Your task to perform on an android device: Open Youtube and go to the subscriptions tab Image 0: 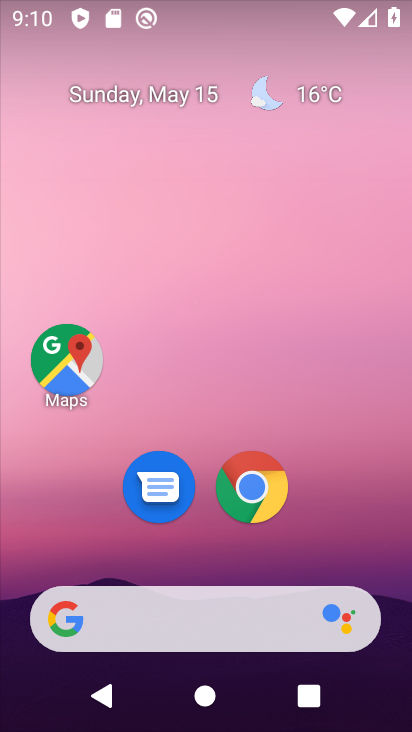
Step 0: drag from (328, 549) to (323, 171)
Your task to perform on an android device: Open Youtube and go to the subscriptions tab Image 1: 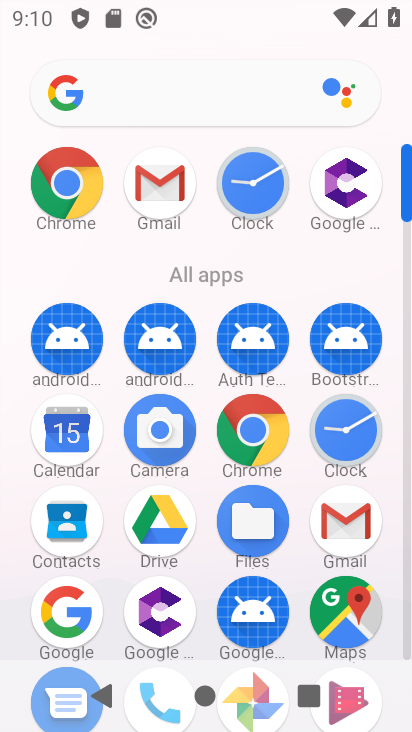
Step 1: drag from (306, 520) to (303, 272)
Your task to perform on an android device: Open Youtube and go to the subscriptions tab Image 2: 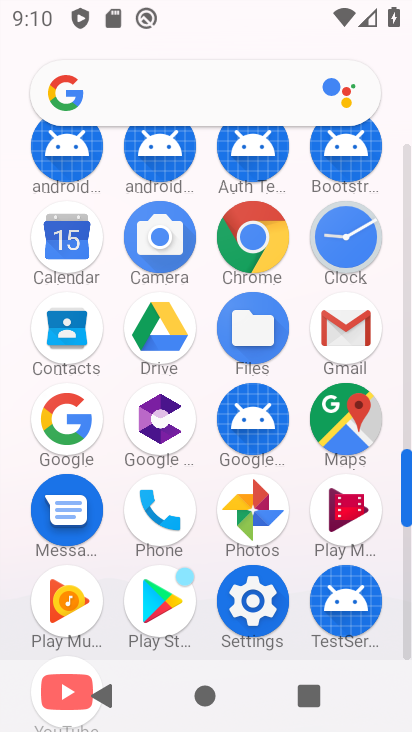
Step 2: drag from (213, 631) to (205, 373)
Your task to perform on an android device: Open Youtube and go to the subscriptions tab Image 3: 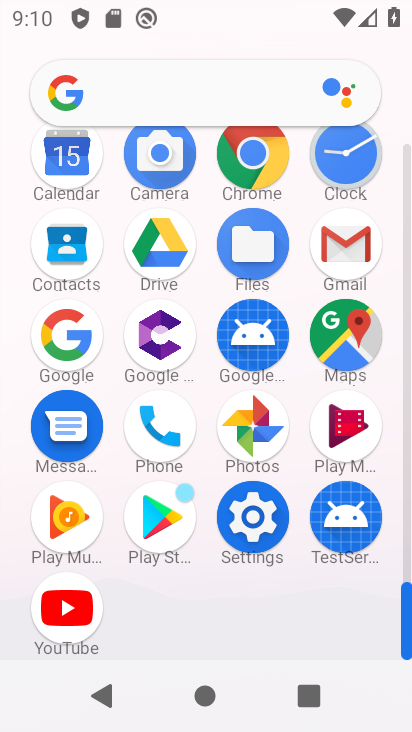
Step 3: click (78, 614)
Your task to perform on an android device: Open Youtube and go to the subscriptions tab Image 4: 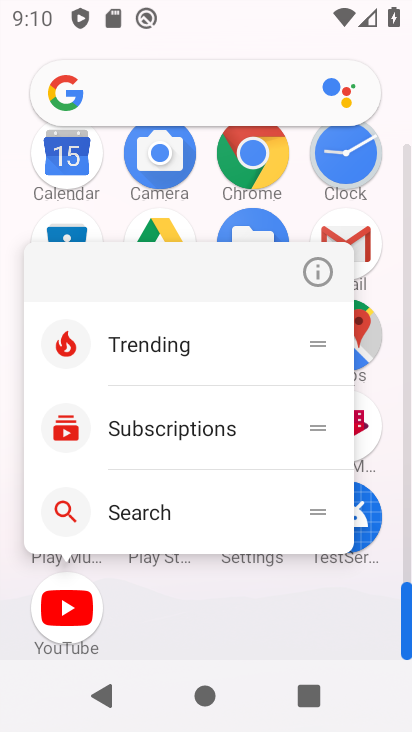
Step 4: click (77, 626)
Your task to perform on an android device: Open Youtube and go to the subscriptions tab Image 5: 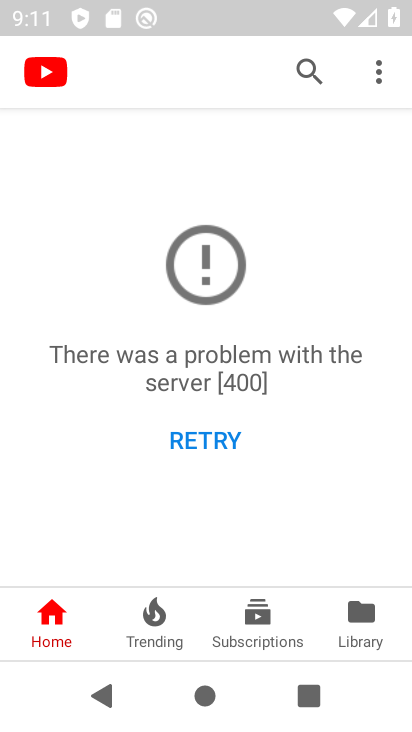
Step 5: click (261, 612)
Your task to perform on an android device: Open Youtube and go to the subscriptions tab Image 6: 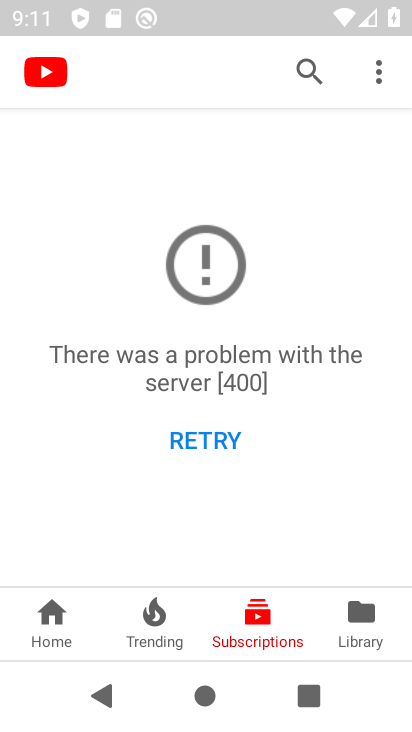
Step 6: task complete